Your task to perform on an android device: Show me productivity apps on the Play Store Image 0: 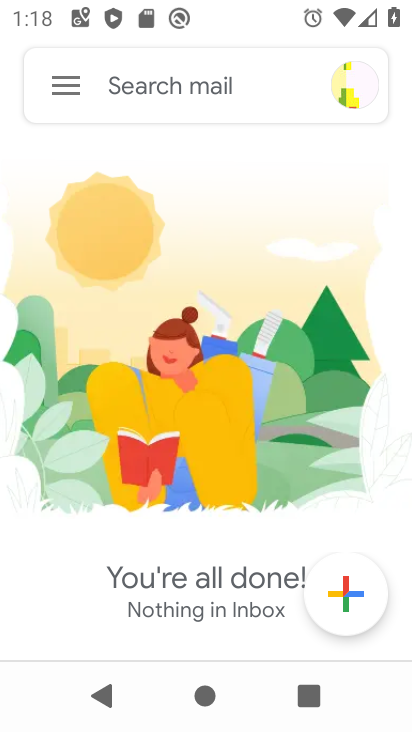
Step 0: press home button
Your task to perform on an android device: Show me productivity apps on the Play Store Image 1: 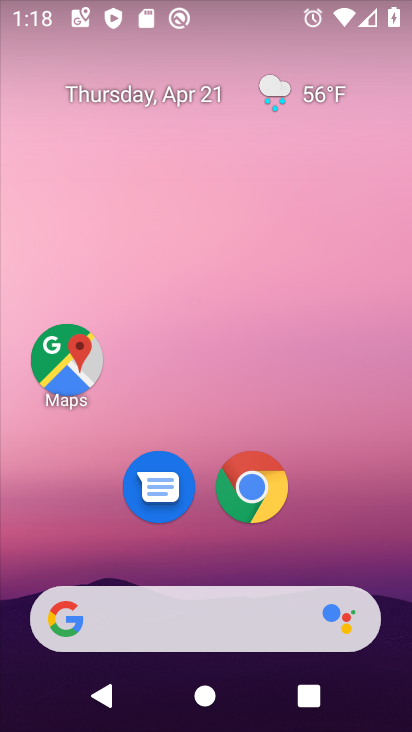
Step 1: drag from (308, 497) to (278, 114)
Your task to perform on an android device: Show me productivity apps on the Play Store Image 2: 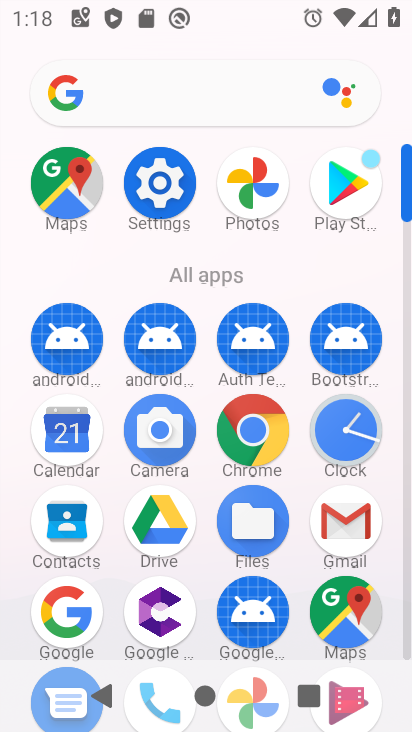
Step 2: drag from (165, 645) to (188, 286)
Your task to perform on an android device: Show me productivity apps on the Play Store Image 3: 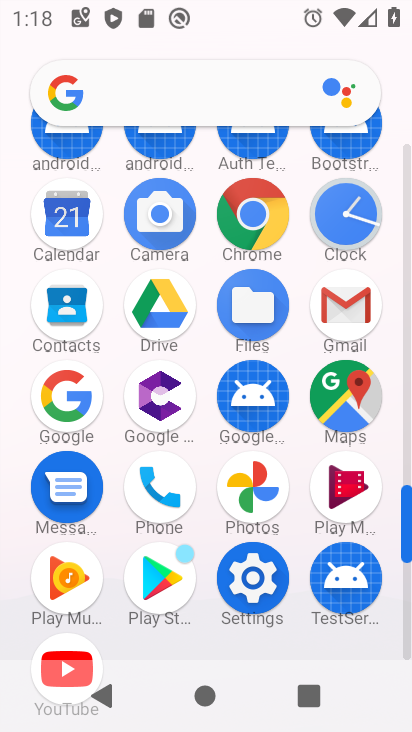
Step 3: click (167, 576)
Your task to perform on an android device: Show me productivity apps on the Play Store Image 4: 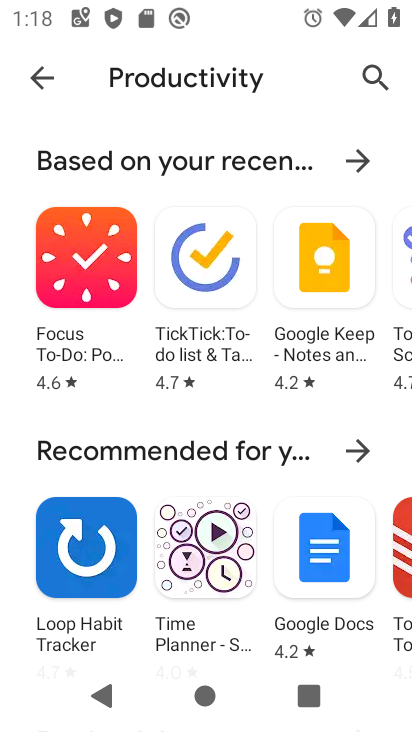
Step 4: task complete